Your task to perform on an android device: Open sound settings Image 0: 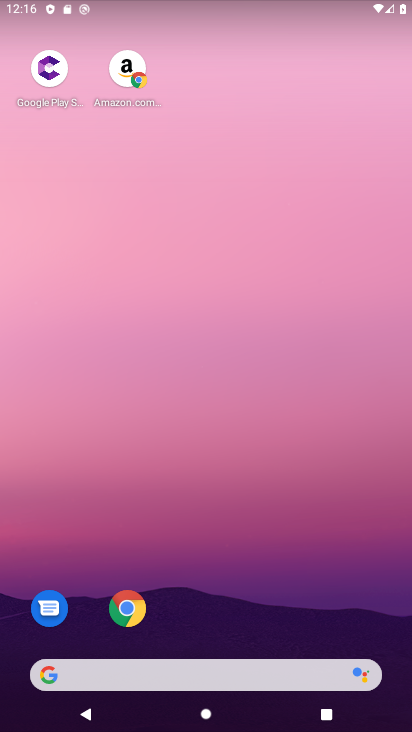
Step 0: drag from (267, 630) to (304, 121)
Your task to perform on an android device: Open sound settings Image 1: 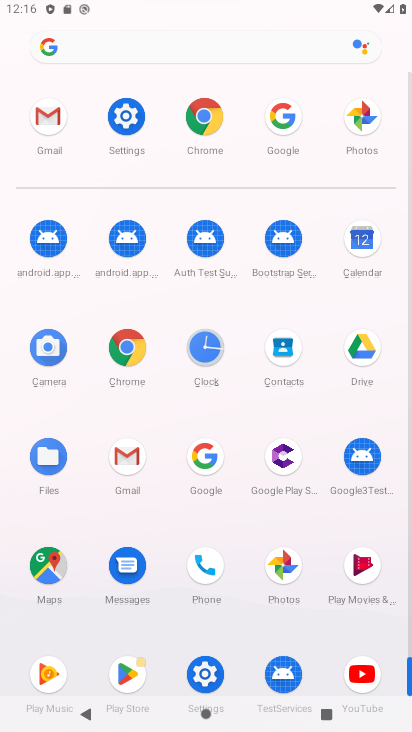
Step 1: click (143, 122)
Your task to perform on an android device: Open sound settings Image 2: 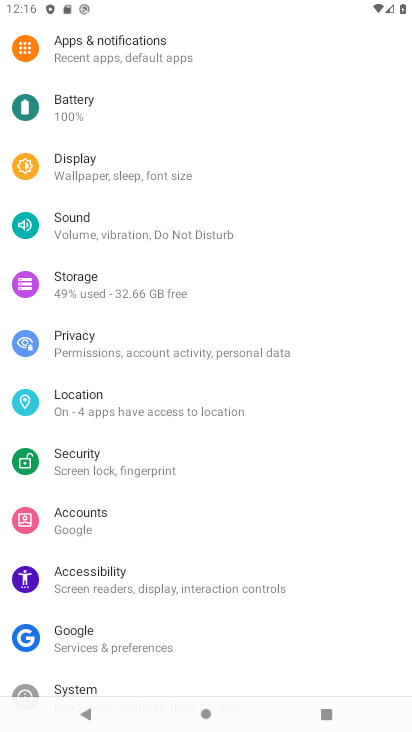
Step 2: drag from (191, 602) to (228, 141)
Your task to perform on an android device: Open sound settings Image 3: 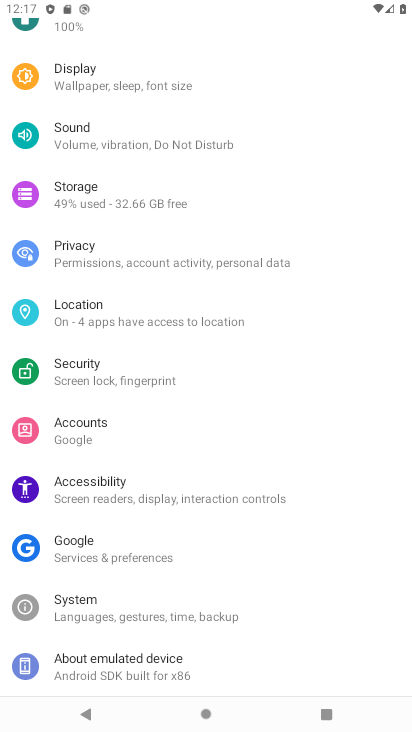
Step 3: click (107, 144)
Your task to perform on an android device: Open sound settings Image 4: 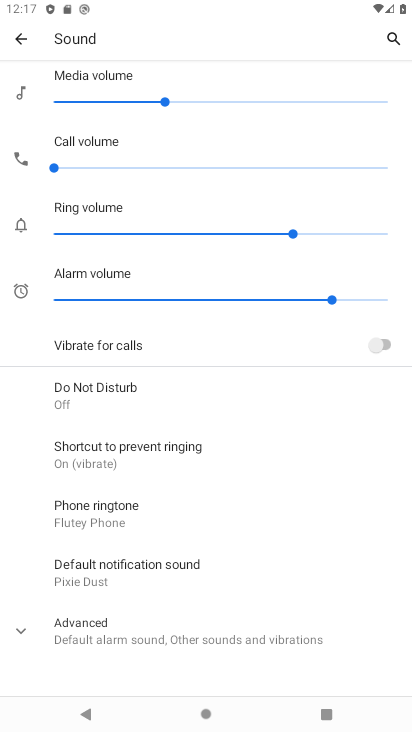
Step 4: task complete